Your task to perform on an android device: allow notifications from all sites in the chrome app Image 0: 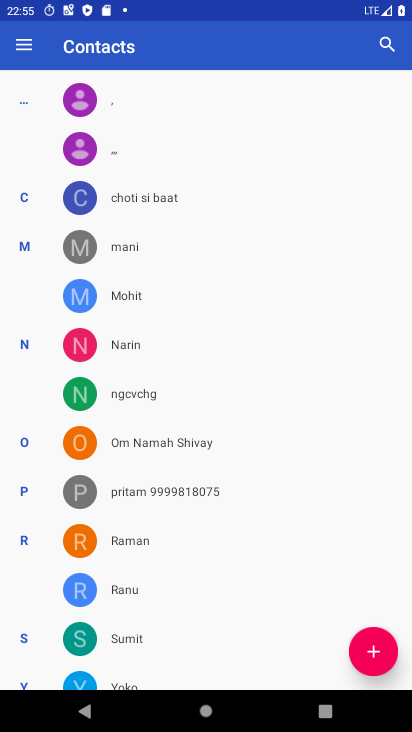
Step 0: press home button
Your task to perform on an android device: allow notifications from all sites in the chrome app Image 1: 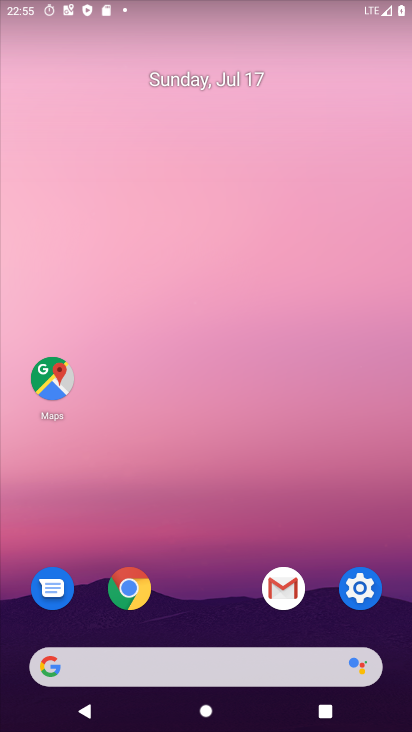
Step 1: click (134, 595)
Your task to perform on an android device: allow notifications from all sites in the chrome app Image 2: 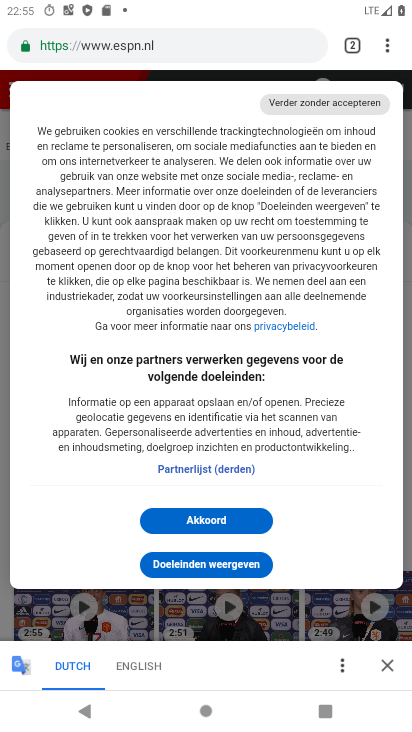
Step 2: click (383, 38)
Your task to perform on an android device: allow notifications from all sites in the chrome app Image 3: 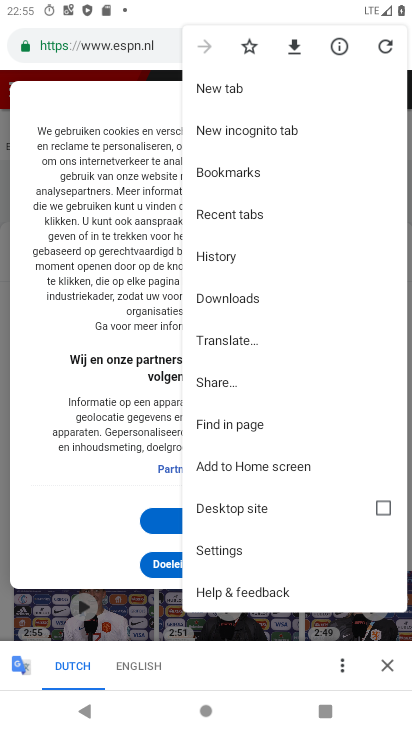
Step 3: click (225, 547)
Your task to perform on an android device: allow notifications from all sites in the chrome app Image 4: 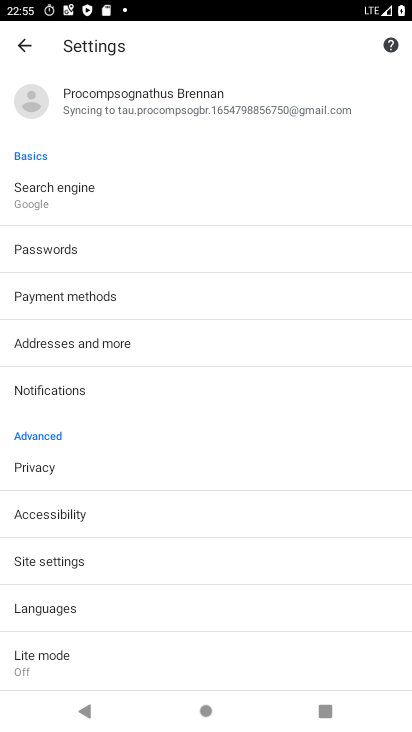
Step 4: click (51, 570)
Your task to perform on an android device: allow notifications from all sites in the chrome app Image 5: 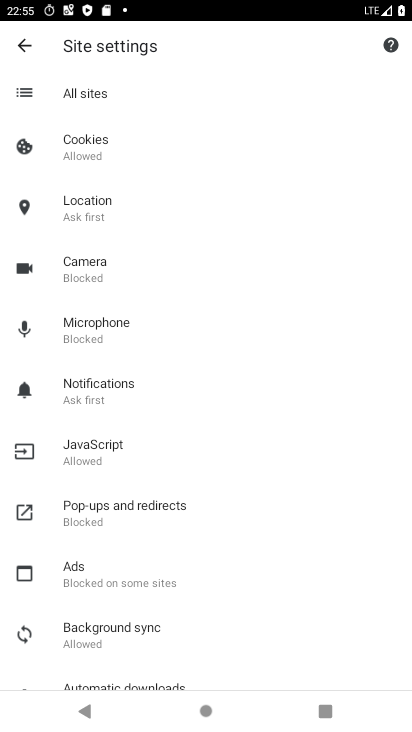
Step 5: click (110, 383)
Your task to perform on an android device: allow notifications from all sites in the chrome app Image 6: 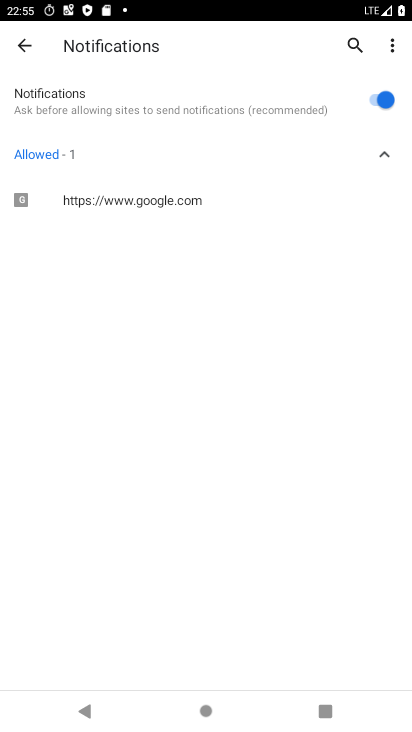
Step 6: click (375, 105)
Your task to perform on an android device: allow notifications from all sites in the chrome app Image 7: 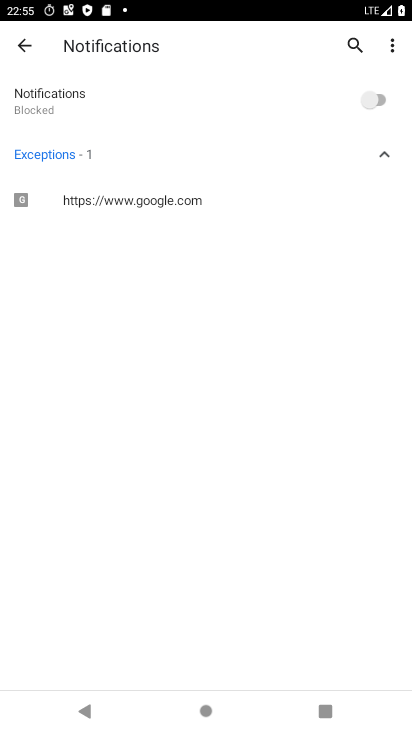
Step 7: click (375, 105)
Your task to perform on an android device: allow notifications from all sites in the chrome app Image 8: 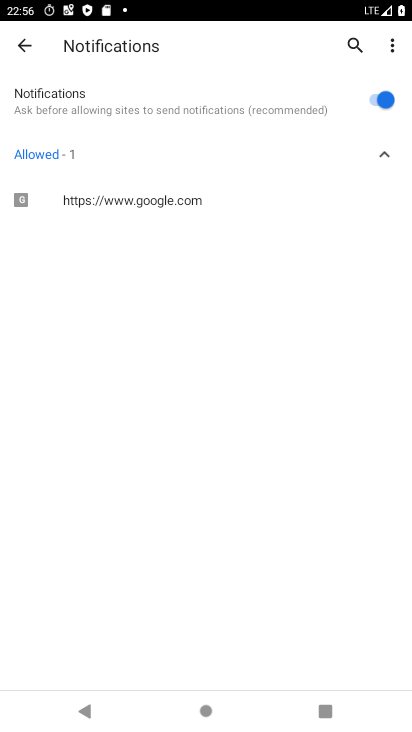
Step 8: click (11, 47)
Your task to perform on an android device: allow notifications from all sites in the chrome app Image 9: 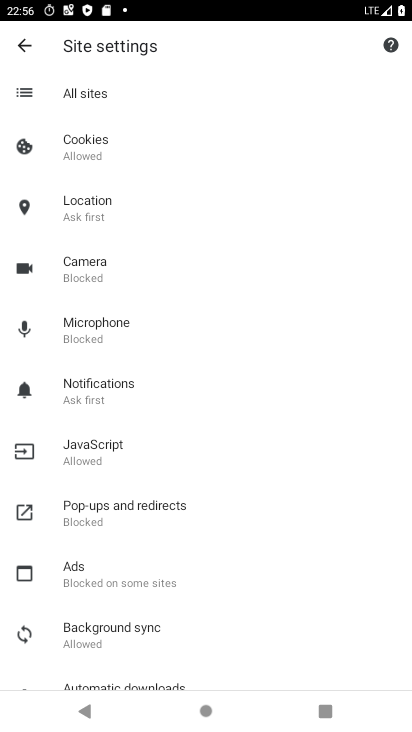
Step 9: task complete